Your task to perform on an android device: check data usage Image 0: 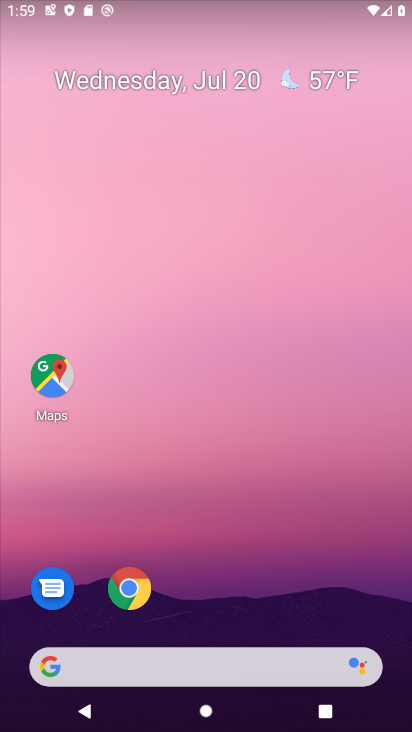
Step 0: drag from (362, 620) to (224, 57)
Your task to perform on an android device: check data usage Image 1: 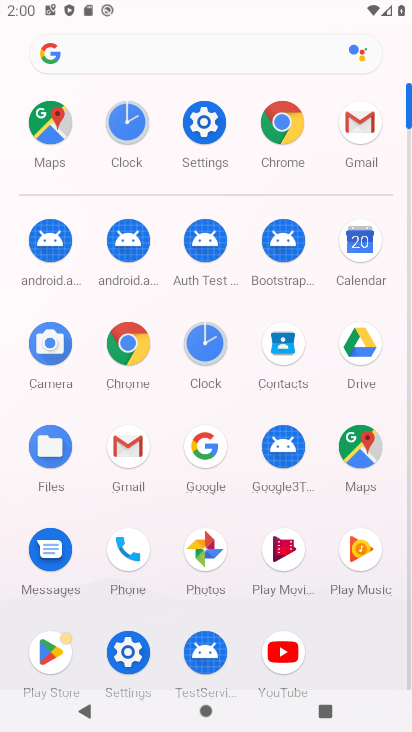
Step 1: click (132, 657)
Your task to perform on an android device: check data usage Image 2: 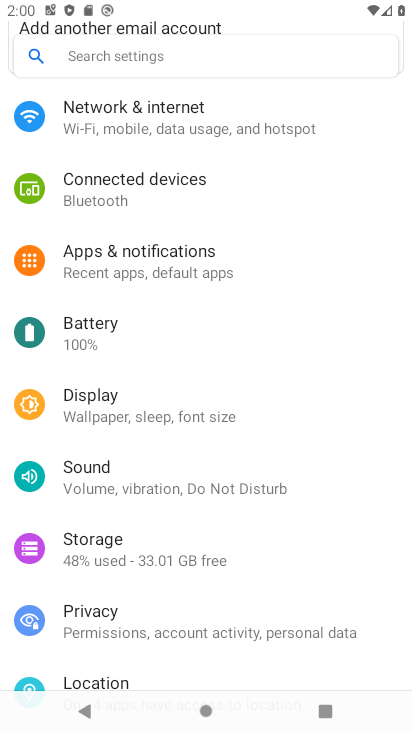
Step 2: click (157, 117)
Your task to perform on an android device: check data usage Image 3: 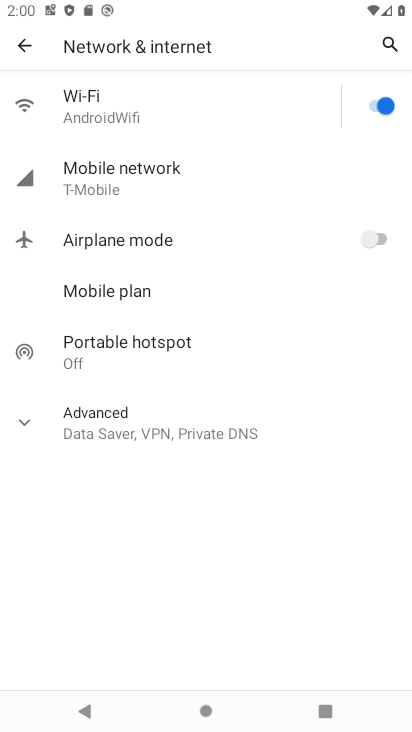
Step 3: click (111, 197)
Your task to perform on an android device: check data usage Image 4: 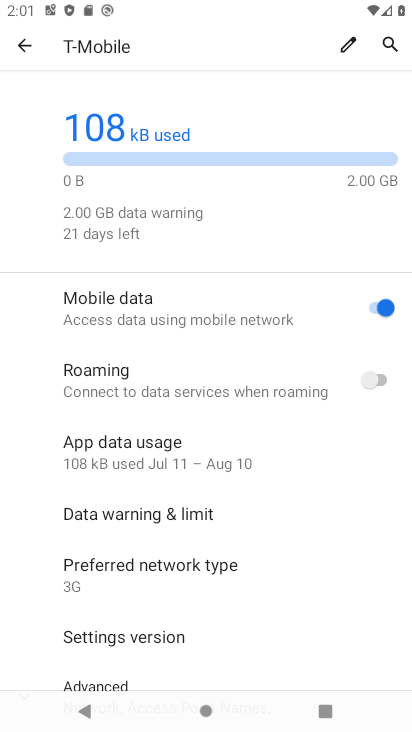
Step 4: click (127, 454)
Your task to perform on an android device: check data usage Image 5: 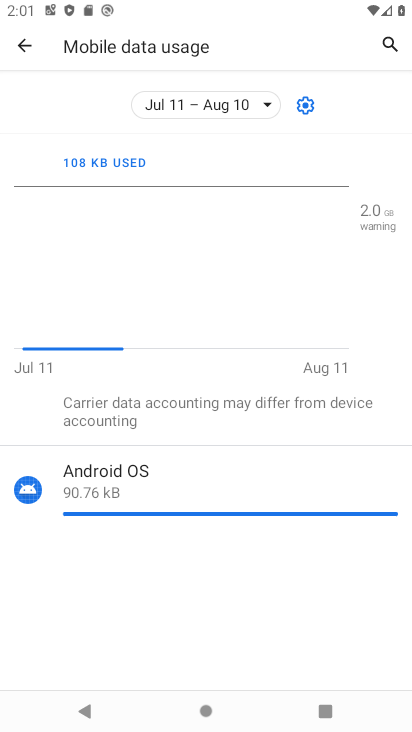
Step 5: task complete